Your task to perform on an android device: change your default location settings in chrome Image 0: 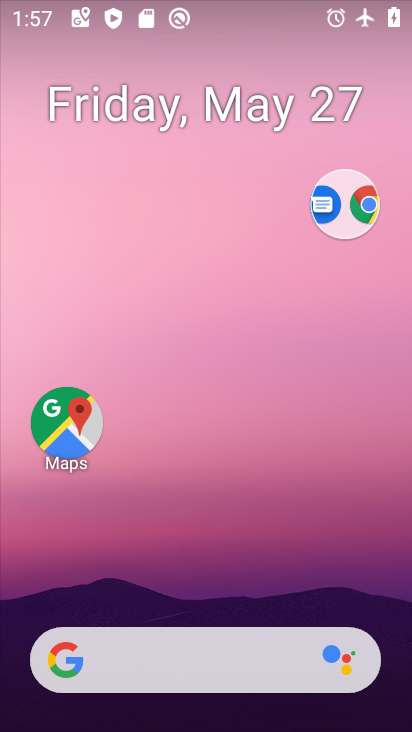
Step 0: drag from (222, 654) to (230, 112)
Your task to perform on an android device: change your default location settings in chrome Image 1: 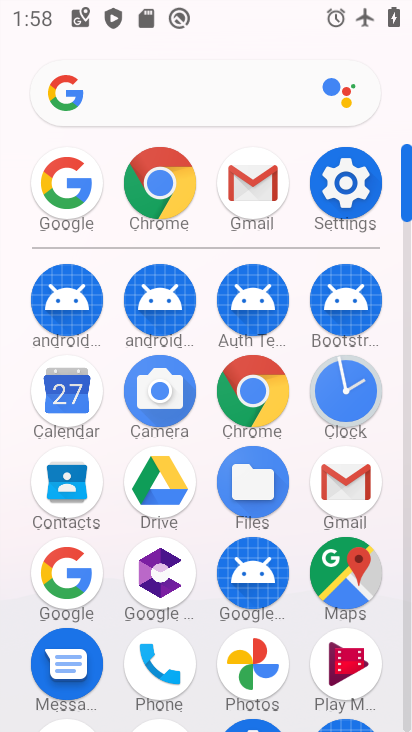
Step 1: click (179, 197)
Your task to perform on an android device: change your default location settings in chrome Image 2: 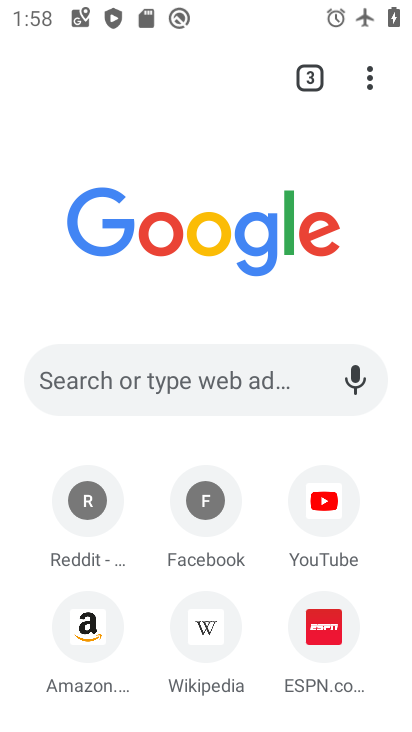
Step 2: click (368, 85)
Your task to perform on an android device: change your default location settings in chrome Image 3: 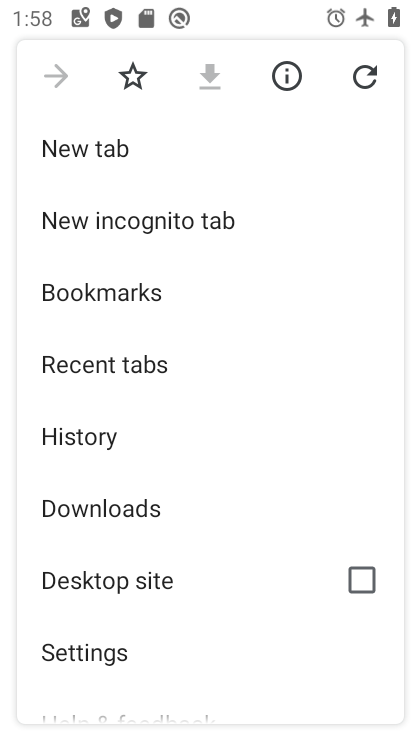
Step 3: drag from (99, 532) to (145, 333)
Your task to perform on an android device: change your default location settings in chrome Image 4: 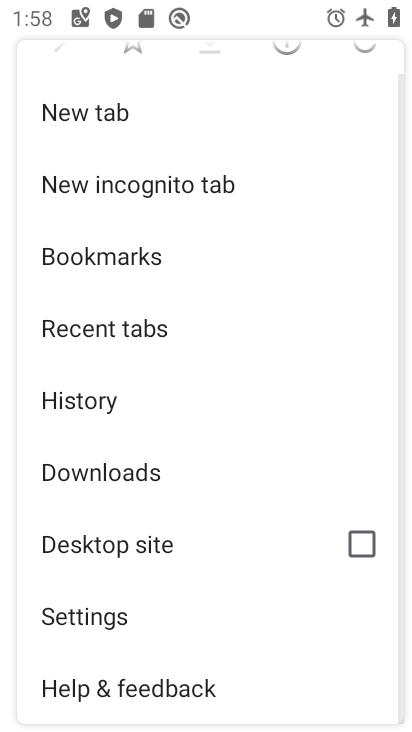
Step 4: click (92, 632)
Your task to perform on an android device: change your default location settings in chrome Image 5: 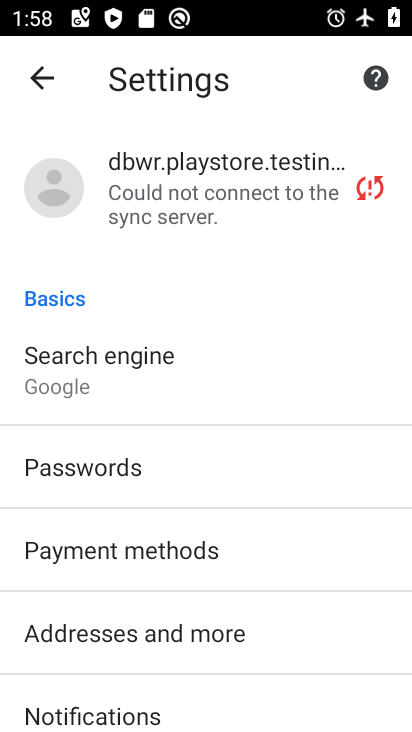
Step 5: drag from (8, 602) to (46, 129)
Your task to perform on an android device: change your default location settings in chrome Image 6: 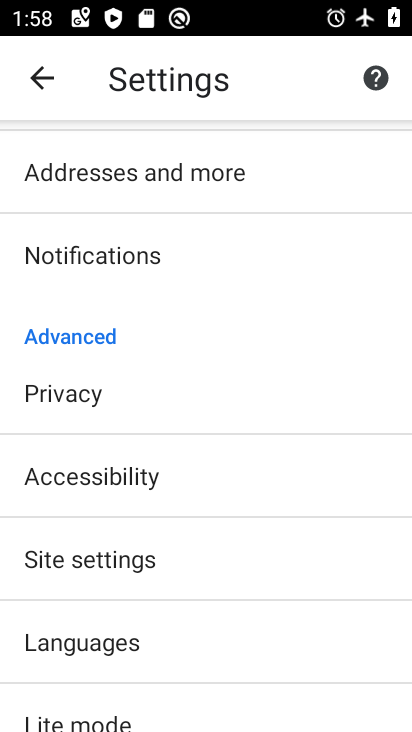
Step 6: click (109, 568)
Your task to perform on an android device: change your default location settings in chrome Image 7: 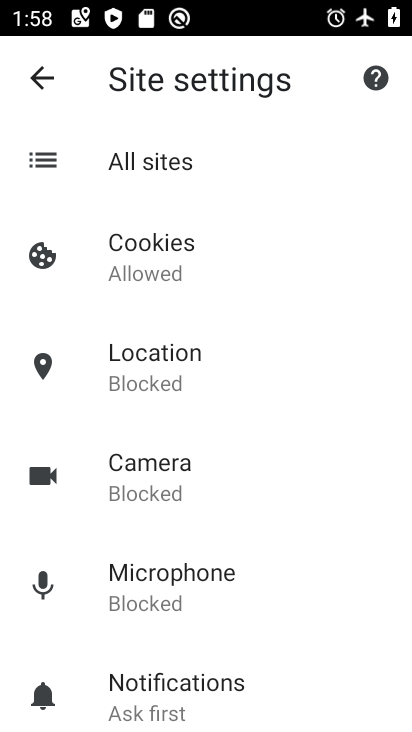
Step 7: click (168, 360)
Your task to perform on an android device: change your default location settings in chrome Image 8: 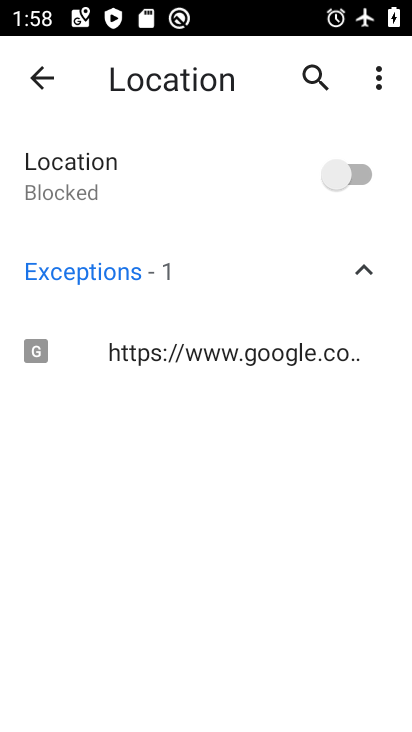
Step 8: click (350, 183)
Your task to perform on an android device: change your default location settings in chrome Image 9: 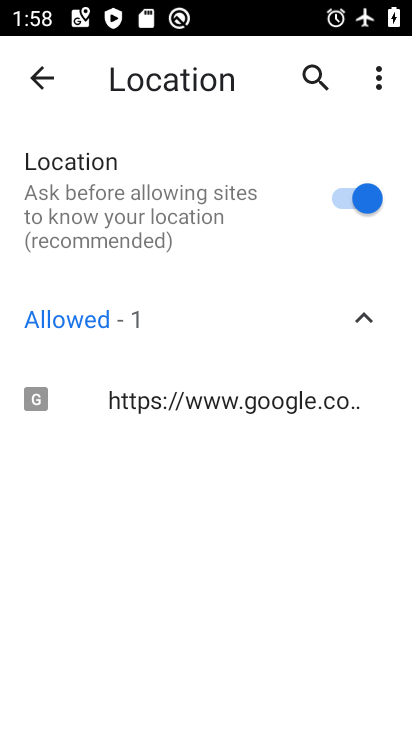
Step 9: task complete